Your task to perform on an android device: What is the recent news? Image 0: 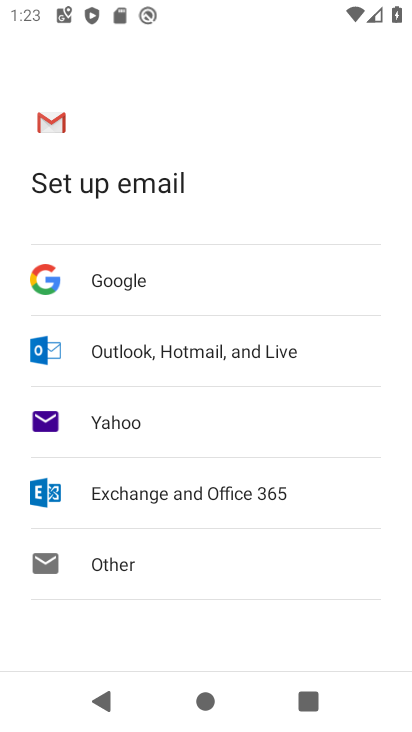
Step 0: press home button
Your task to perform on an android device: What is the recent news? Image 1: 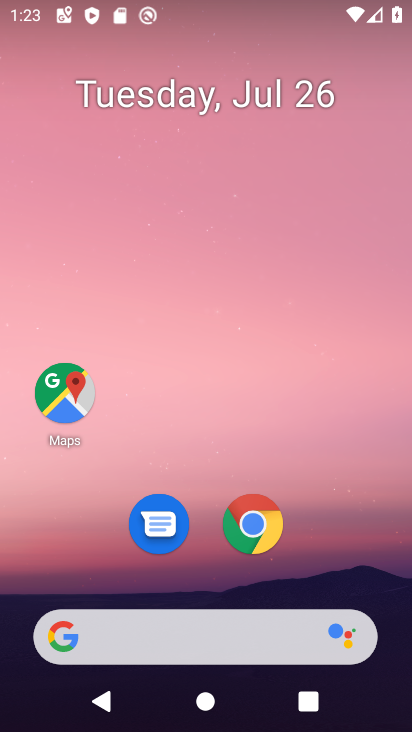
Step 1: drag from (316, 570) to (321, 68)
Your task to perform on an android device: What is the recent news? Image 2: 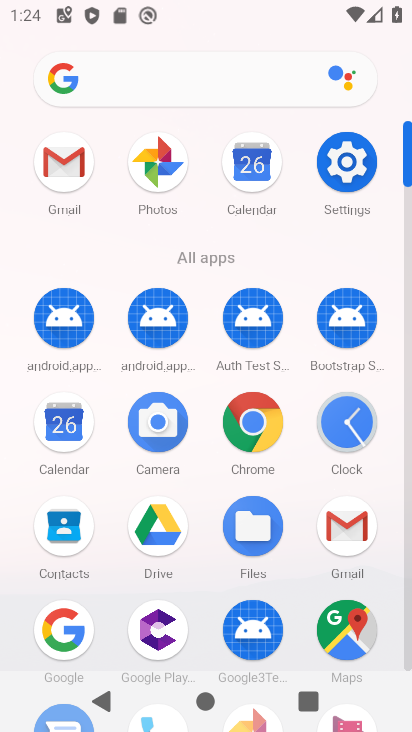
Step 2: press home button
Your task to perform on an android device: What is the recent news? Image 3: 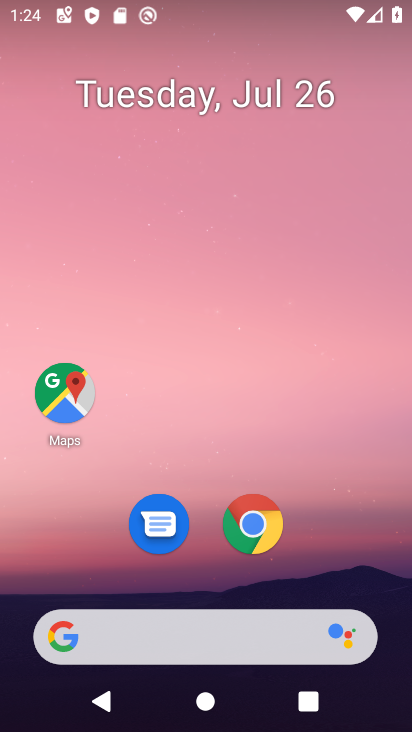
Step 3: click (185, 646)
Your task to perform on an android device: What is the recent news? Image 4: 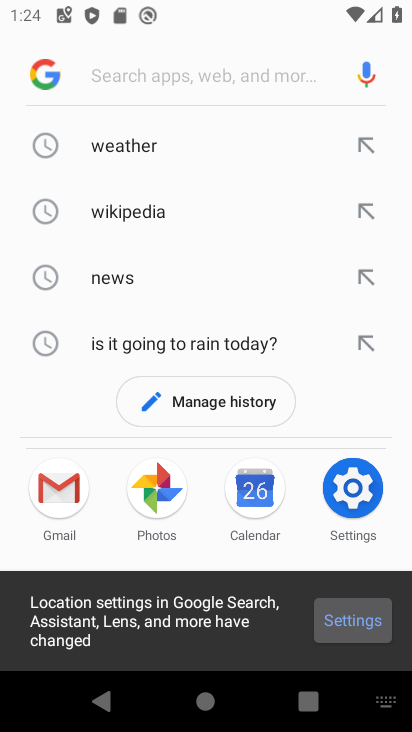
Step 4: click (121, 272)
Your task to perform on an android device: What is the recent news? Image 5: 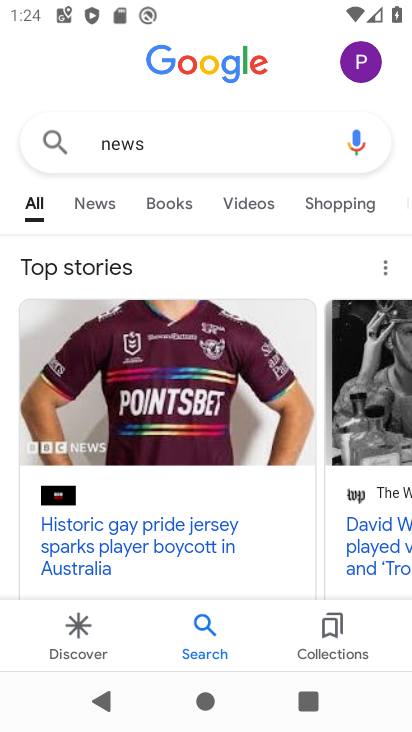
Step 5: click (97, 197)
Your task to perform on an android device: What is the recent news? Image 6: 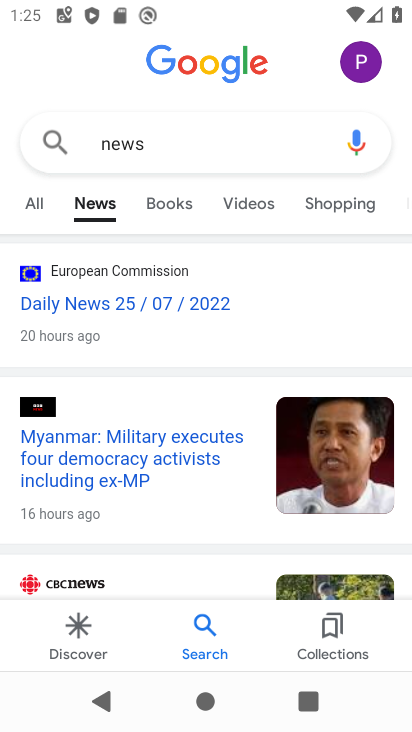
Step 6: task complete